Your task to perform on an android device: open app "Messenger Lite" (install if not already installed) Image 0: 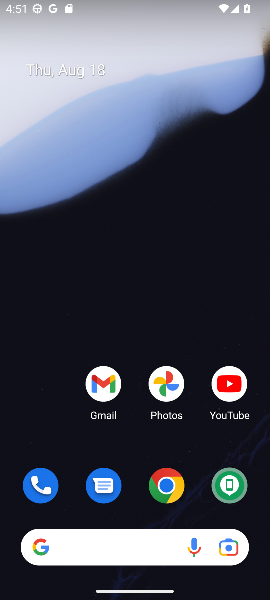
Step 0: drag from (158, 466) to (192, 12)
Your task to perform on an android device: open app "Messenger Lite" (install if not already installed) Image 1: 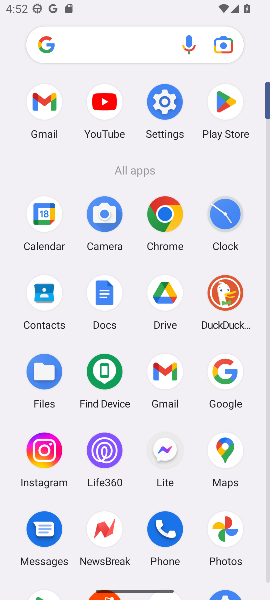
Step 1: click (228, 104)
Your task to perform on an android device: open app "Messenger Lite" (install if not already installed) Image 2: 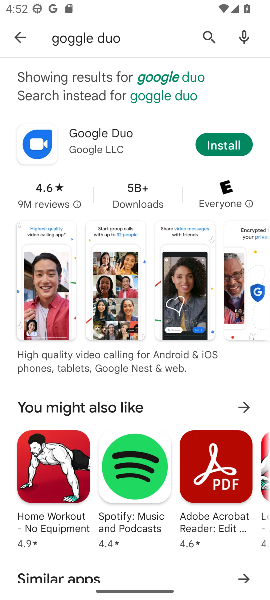
Step 2: click (206, 35)
Your task to perform on an android device: open app "Messenger Lite" (install if not already installed) Image 3: 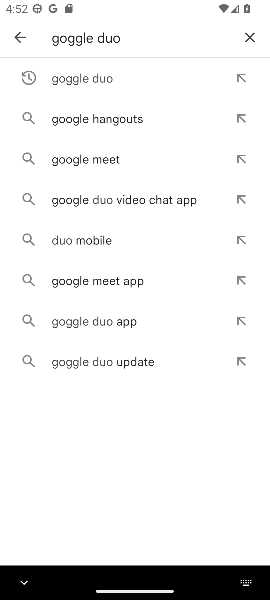
Step 3: click (247, 34)
Your task to perform on an android device: open app "Messenger Lite" (install if not already installed) Image 4: 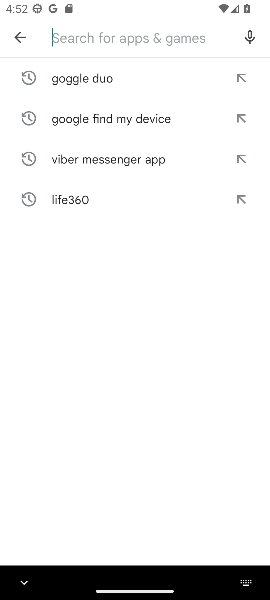
Step 4: type "Messenger Lite"
Your task to perform on an android device: open app "Messenger Lite" (install if not already installed) Image 5: 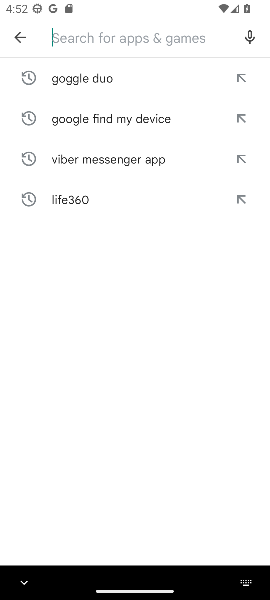
Step 5: click (174, 344)
Your task to perform on an android device: open app "Messenger Lite" (install if not already installed) Image 6: 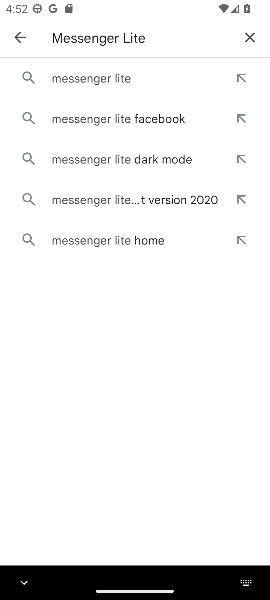
Step 6: click (99, 83)
Your task to perform on an android device: open app "Messenger Lite" (install if not already installed) Image 7: 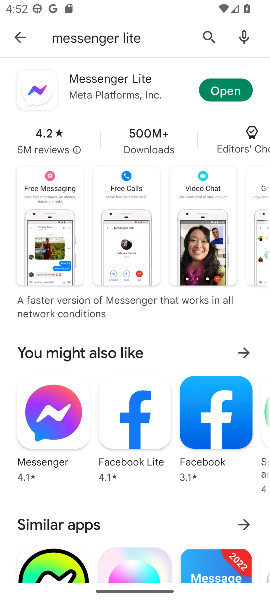
Step 7: click (219, 91)
Your task to perform on an android device: open app "Messenger Lite" (install if not already installed) Image 8: 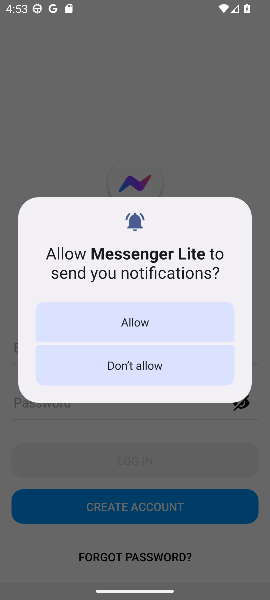
Step 8: task complete